Your task to perform on an android device: How do I get to the nearest Walmart? Image 0: 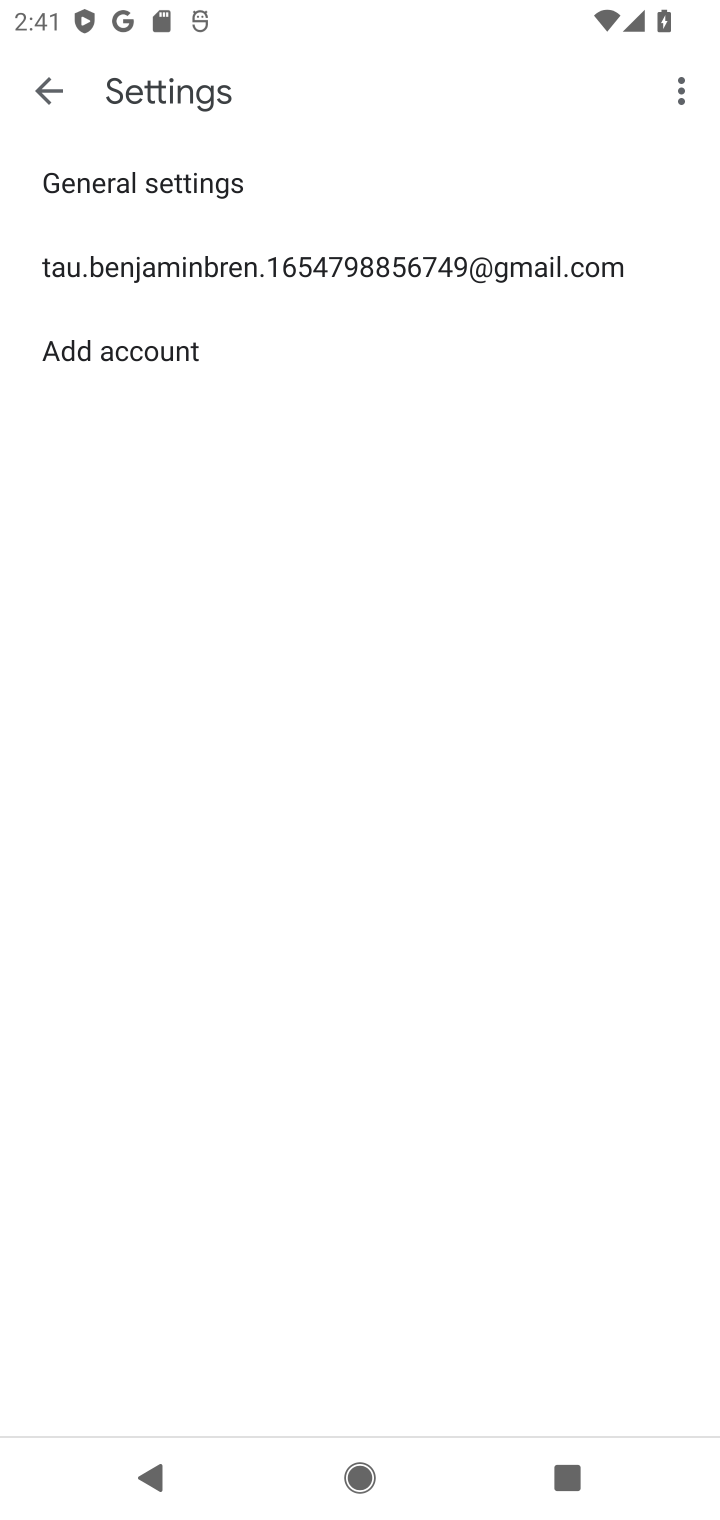
Step 0: press home button
Your task to perform on an android device: How do I get to the nearest Walmart? Image 1: 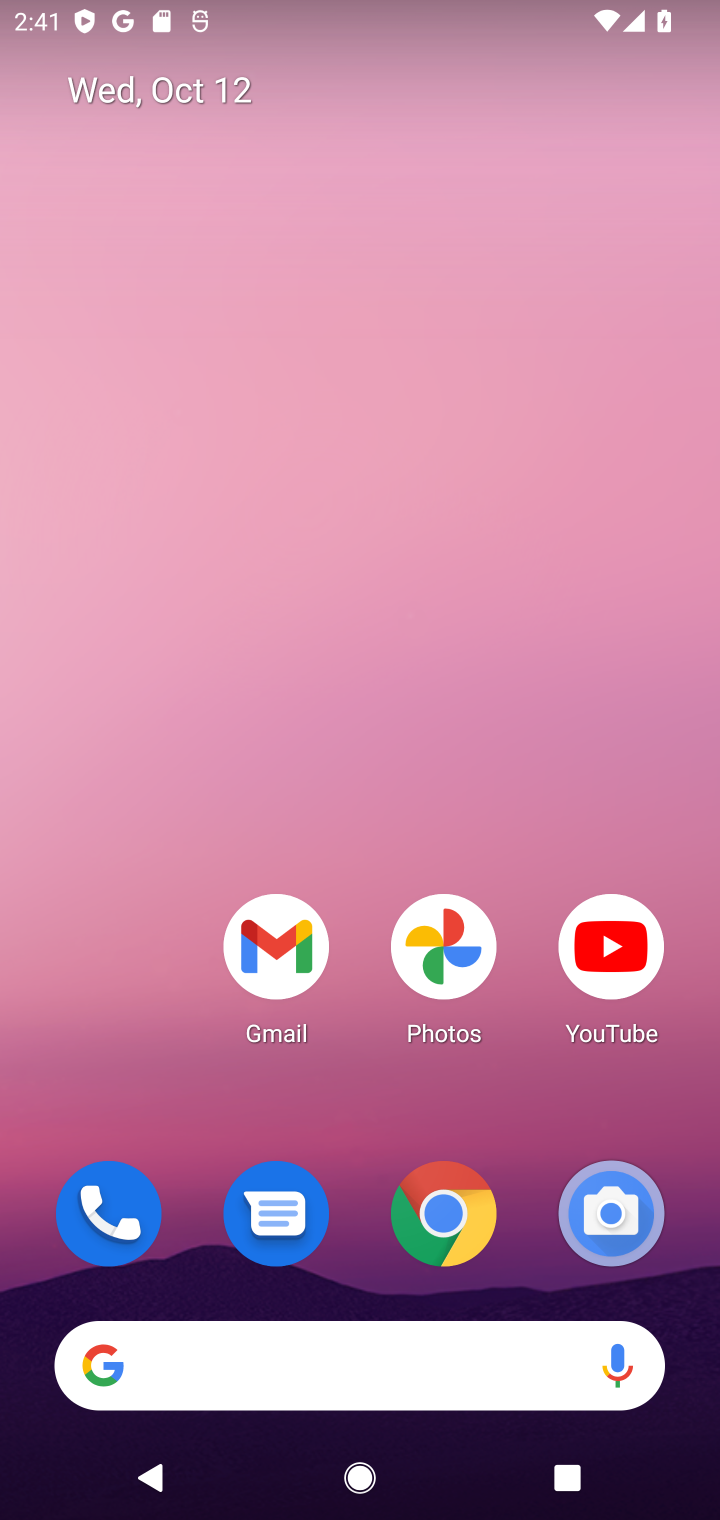
Step 1: click (309, 1353)
Your task to perform on an android device: How do I get to the nearest Walmart? Image 2: 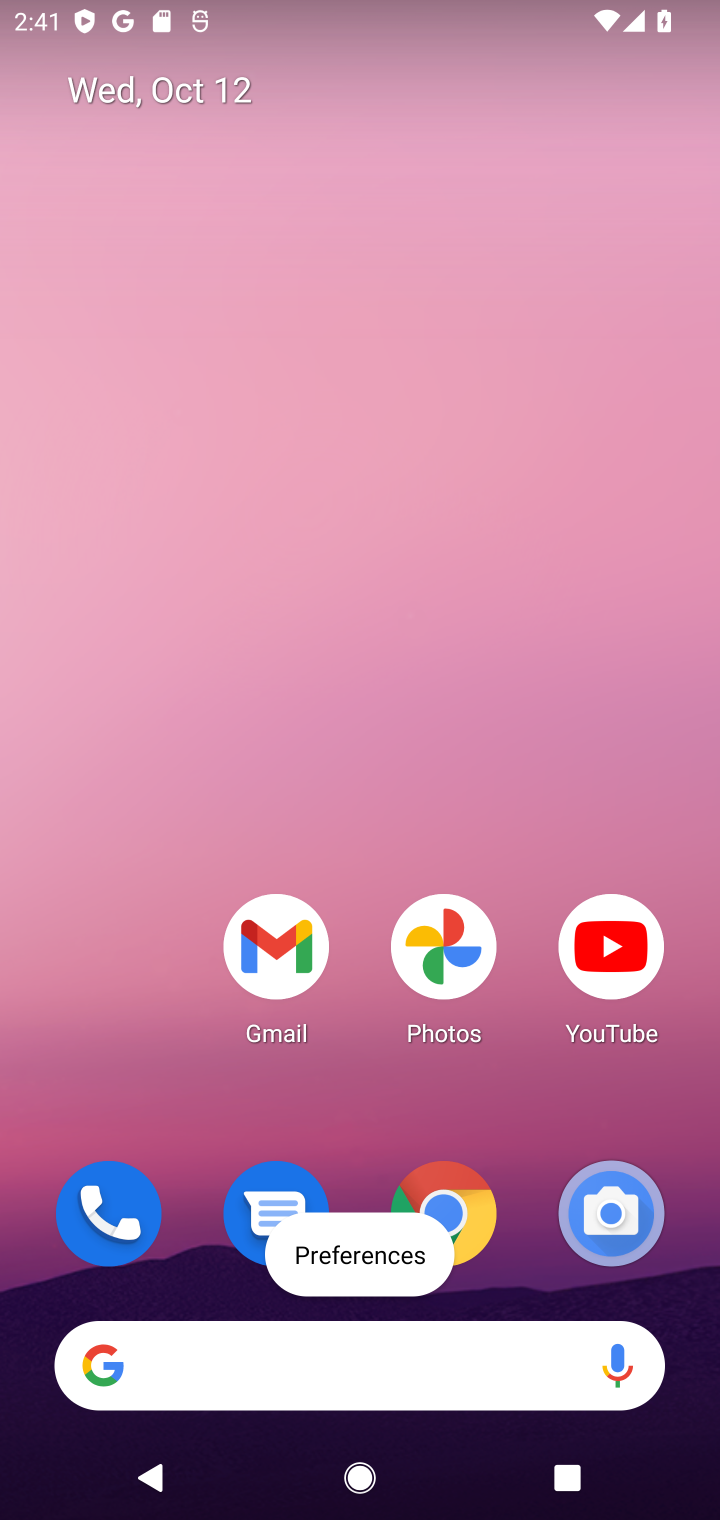
Step 2: click (299, 1377)
Your task to perform on an android device: How do I get to the nearest Walmart? Image 3: 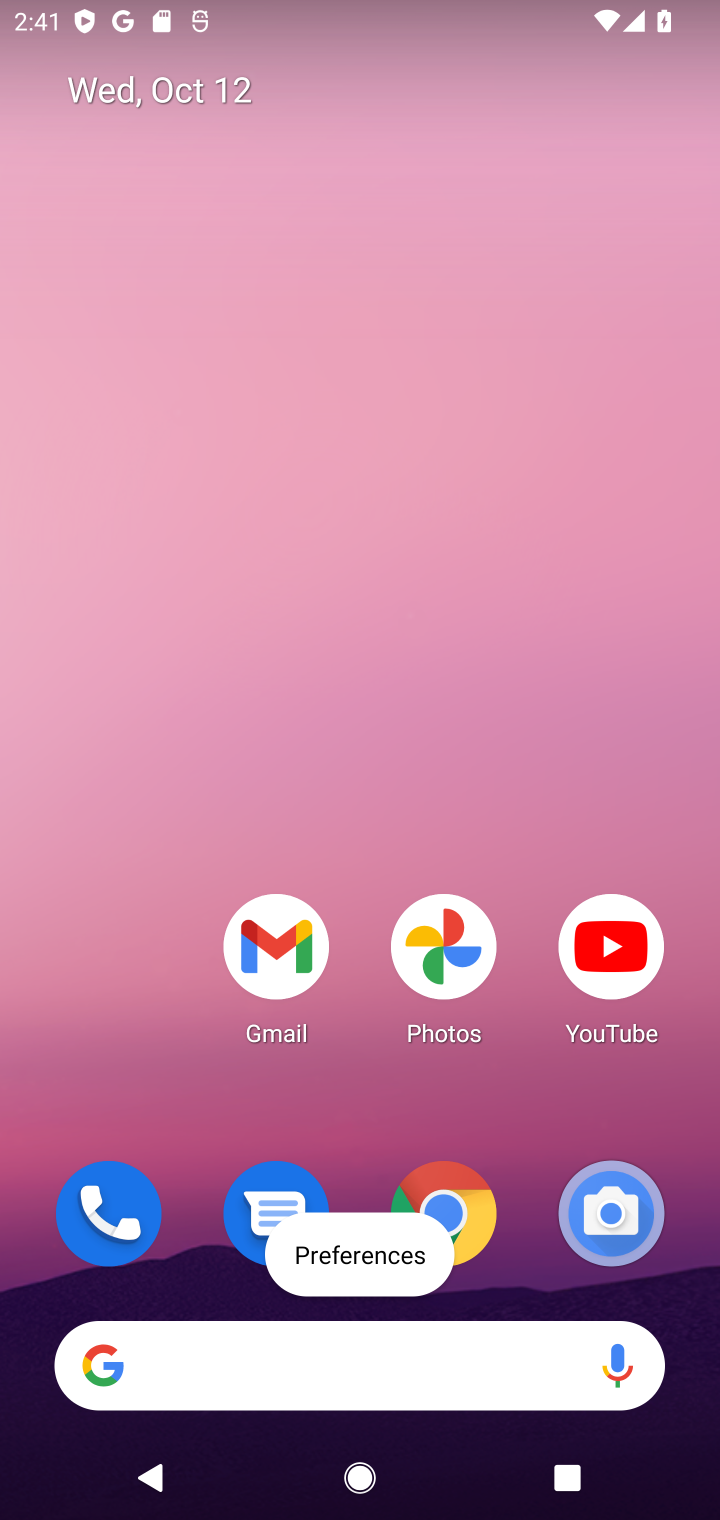
Step 3: click (299, 1377)
Your task to perform on an android device: How do I get to the nearest Walmart? Image 4: 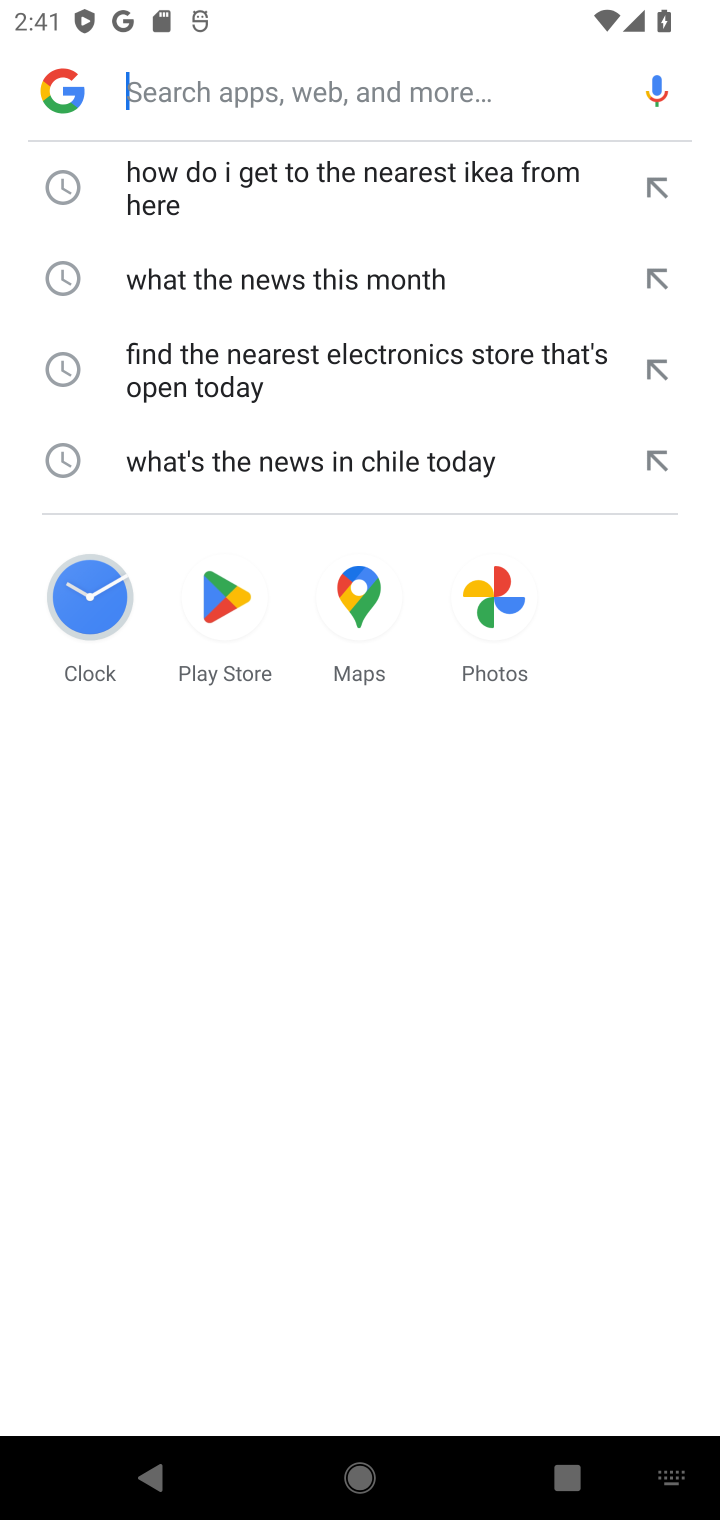
Step 4: click (328, 114)
Your task to perform on an android device: How do I get to the nearest Walmart? Image 5: 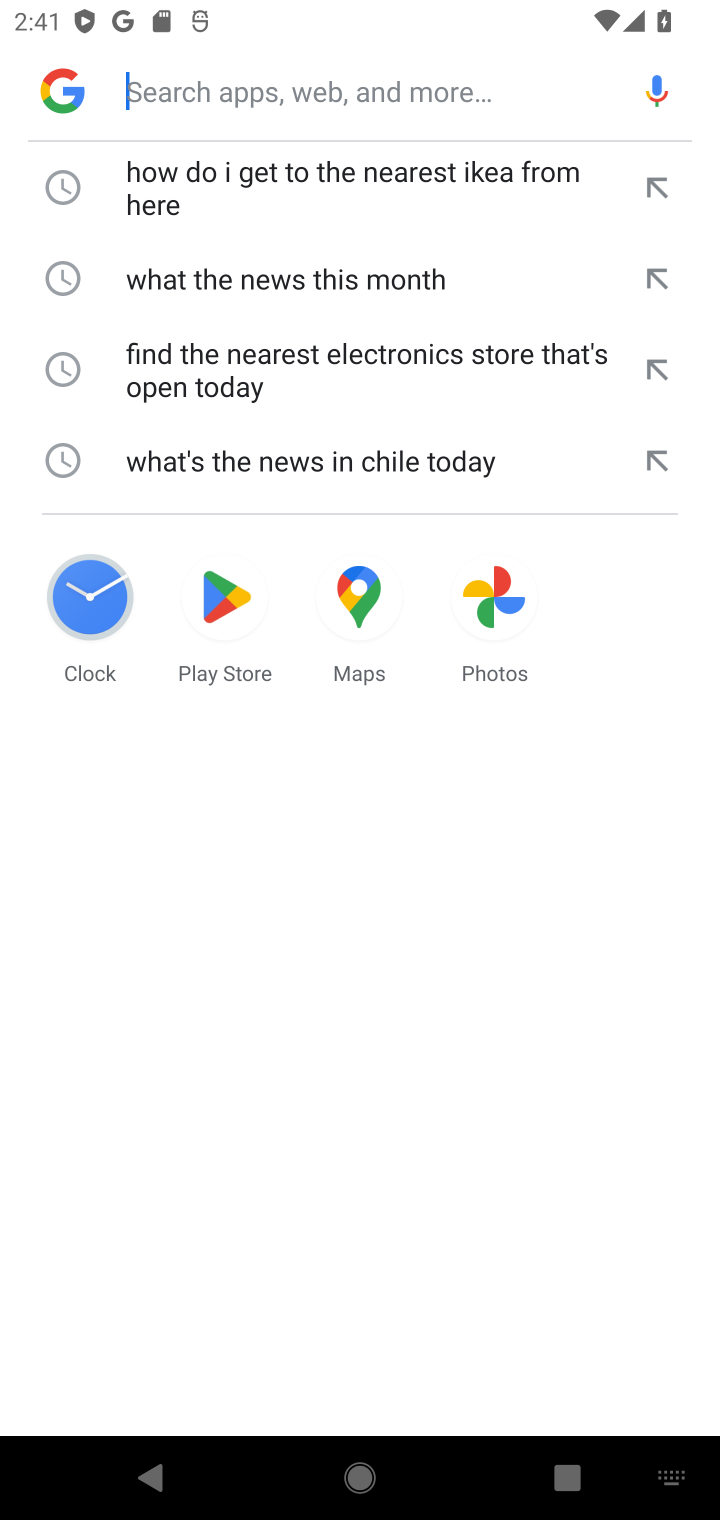
Step 5: type "How do I get to the nearest Walmart?"
Your task to perform on an android device: How do I get to the nearest Walmart? Image 6: 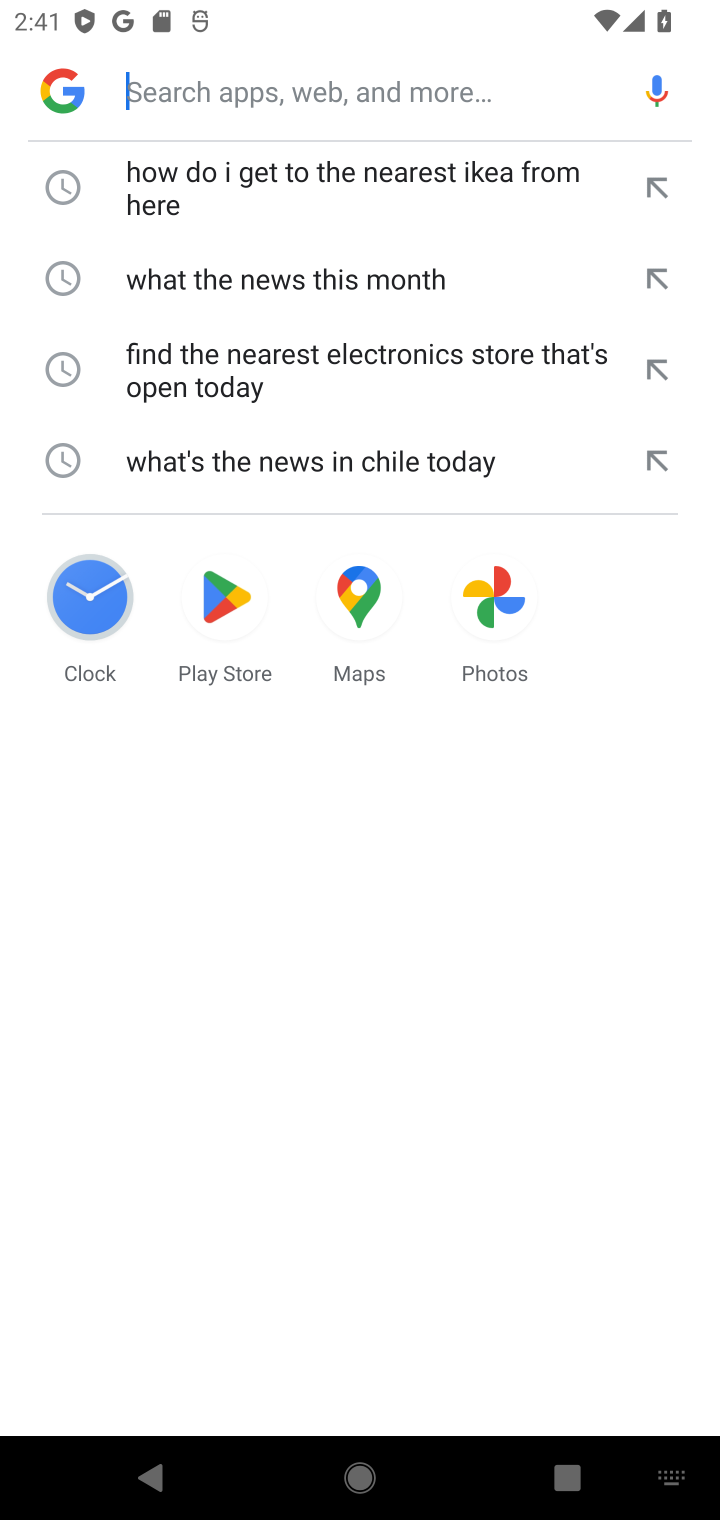
Step 6: click (357, 1265)
Your task to perform on an android device: How do I get to the nearest Walmart? Image 7: 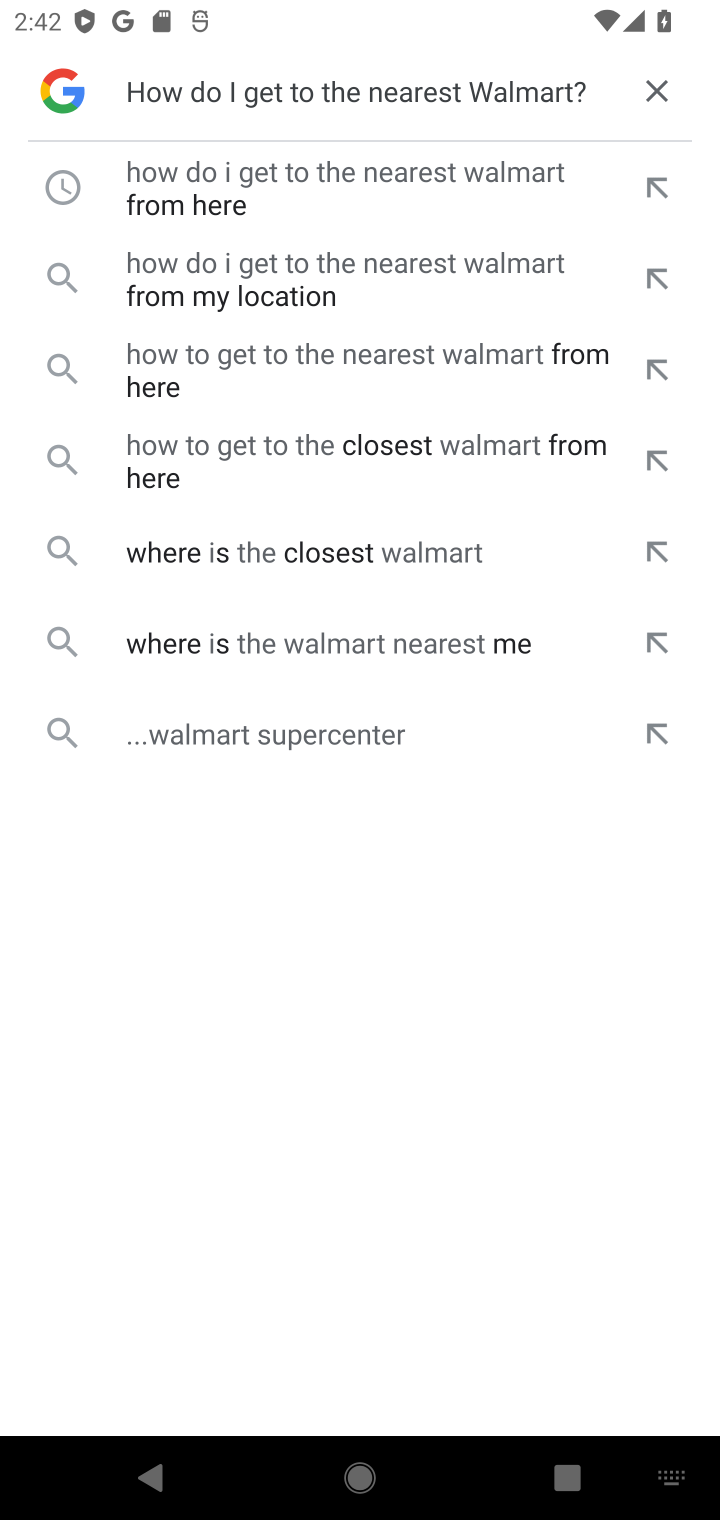
Step 7: click (175, 156)
Your task to perform on an android device: How do I get to the nearest Walmart? Image 8: 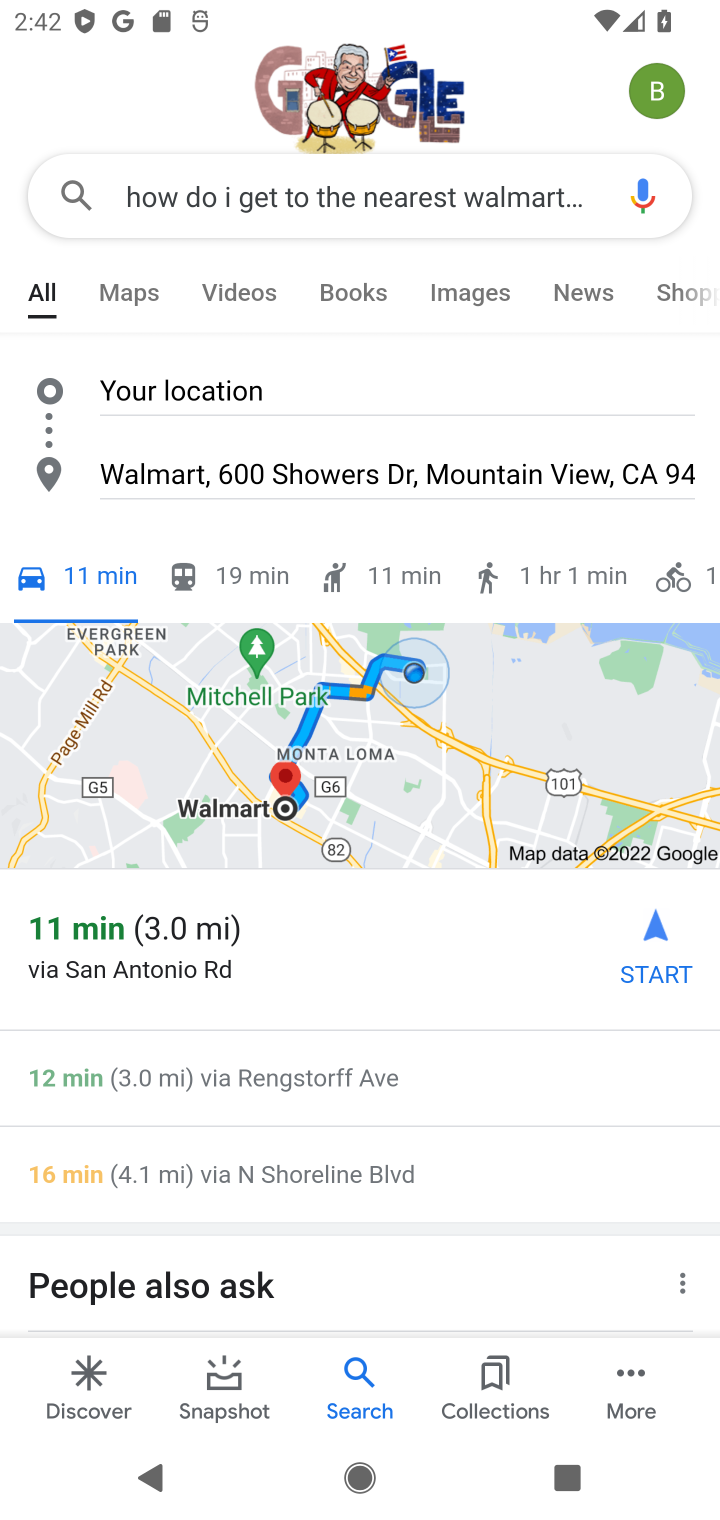
Step 8: task complete